Your task to perform on an android device: turn pop-ups off in chrome Image 0: 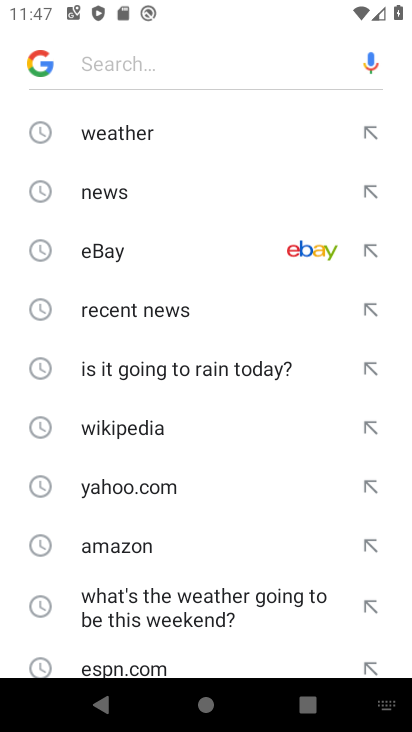
Step 0: press home button
Your task to perform on an android device: turn pop-ups off in chrome Image 1: 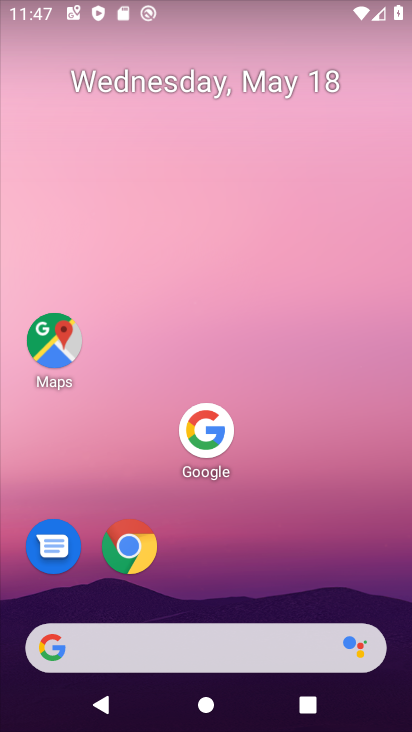
Step 1: click (127, 546)
Your task to perform on an android device: turn pop-ups off in chrome Image 2: 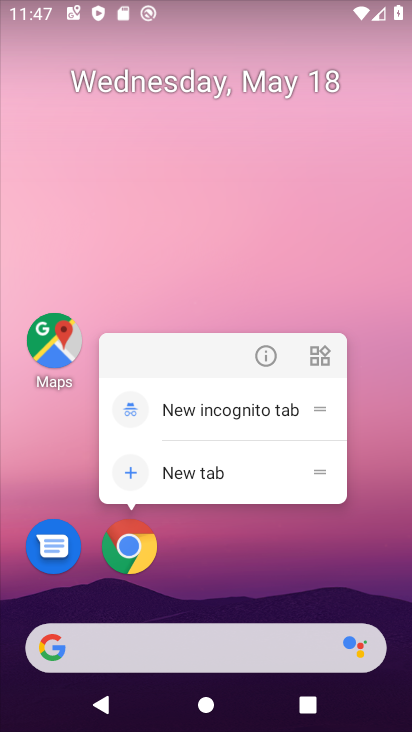
Step 2: click (265, 343)
Your task to perform on an android device: turn pop-ups off in chrome Image 3: 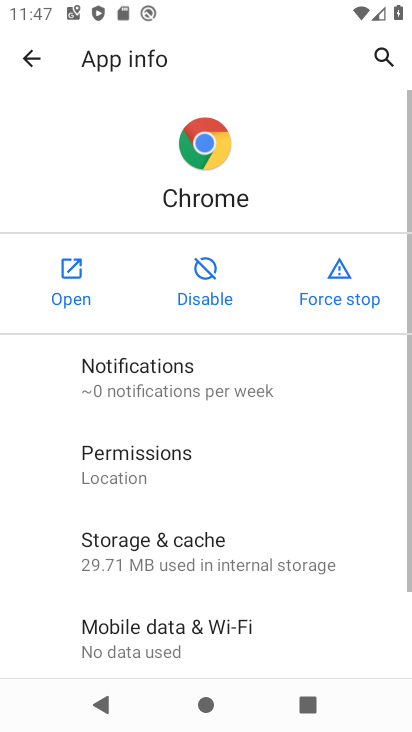
Step 3: drag from (264, 611) to (230, 6)
Your task to perform on an android device: turn pop-ups off in chrome Image 4: 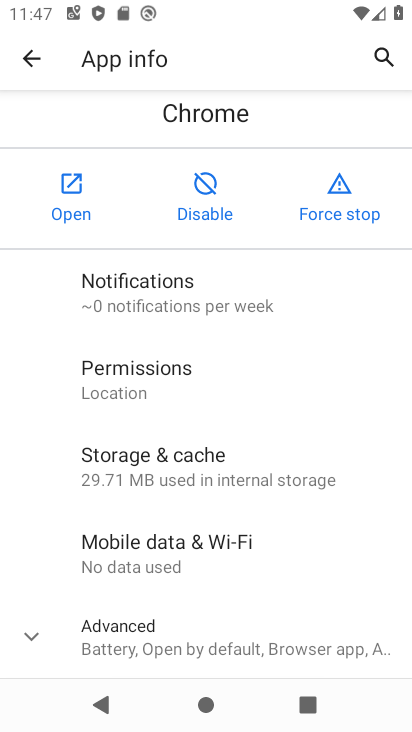
Step 4: click (115, 653)
Your task to perform on an android device: turn pop-ups off in chrome Image 5: 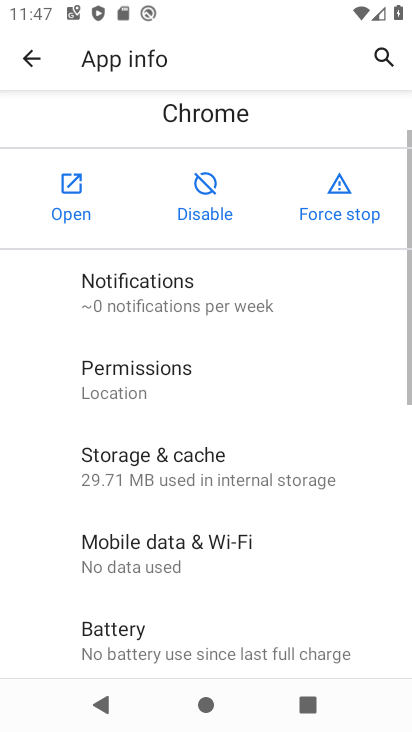
Step 5: drag from (285, 543) to (257, 149)
Your task to perform on an android device: turn pop-ups off in chrome Image 6: 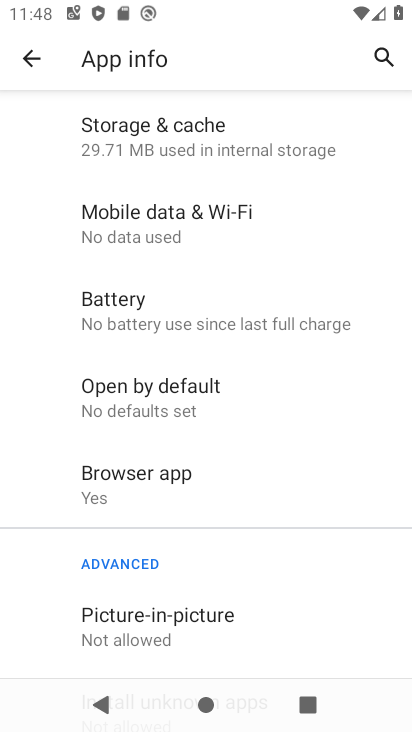
Step 6: click (194, 648)
Your task to perform on an android device: turn pop-ups off in chrome Image 7: 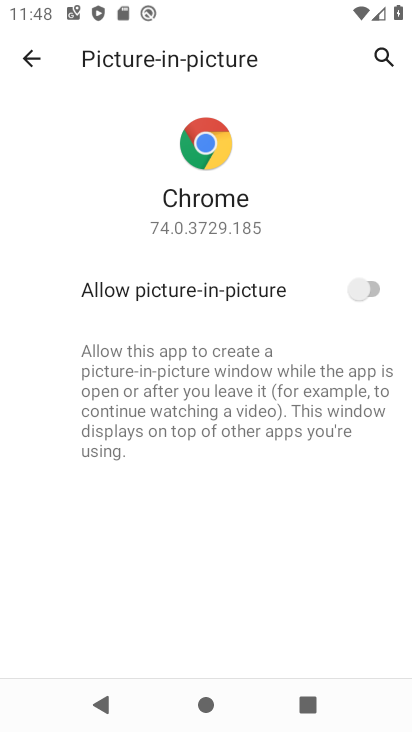
Step 7: task complete